Your task to perform on an android device: Open privacy settings Image 0: 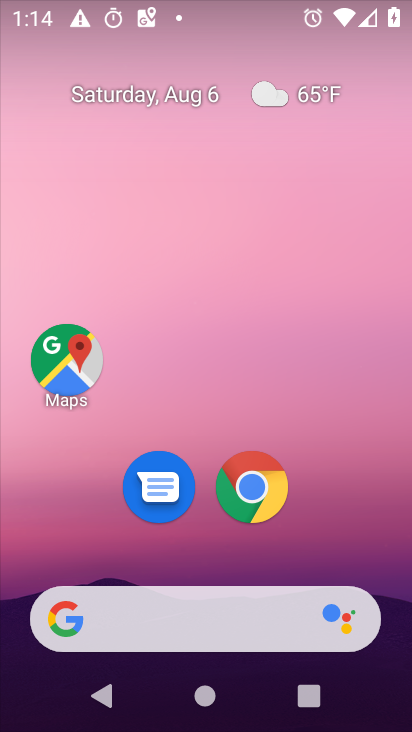
Step 0: drag from (211, 545) to (271, 21)
Your task to perform on an android device: Open privacy settings Image 1: 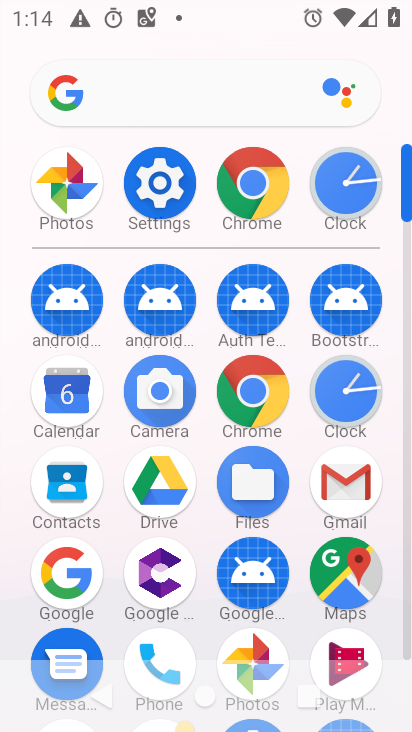
Step 1: click (143, 190)
Your task to perform on an android device: Open privacy settings Image 2: 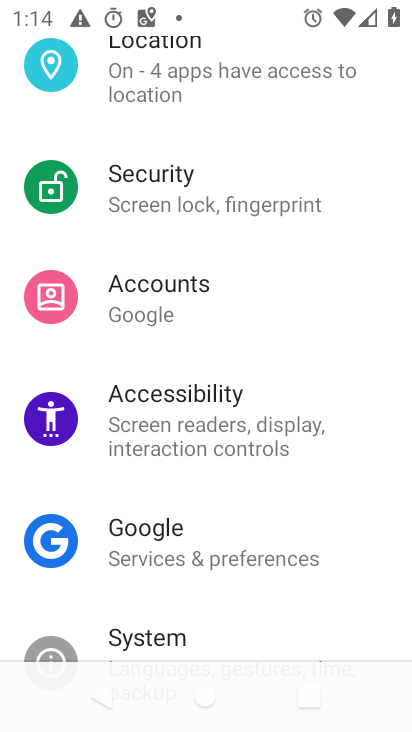
Step 2: drag from (313, 227) to (243, 696)
Your task to perform on an android device: Open privacy settings Image 3: 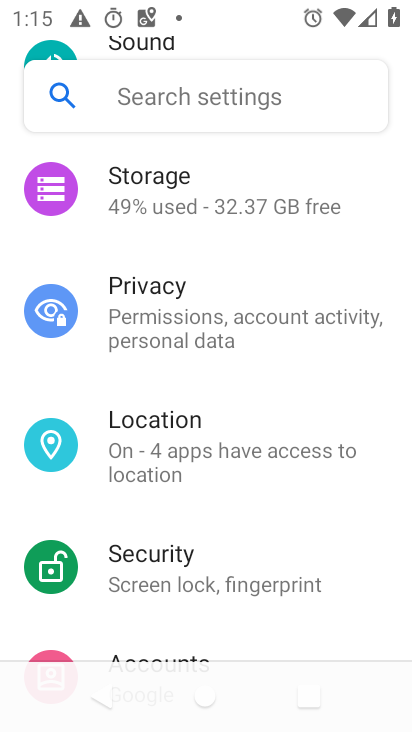
Step 3: click (172, 309)
Your task to perform on an android device: Open privacy settings Image 4: 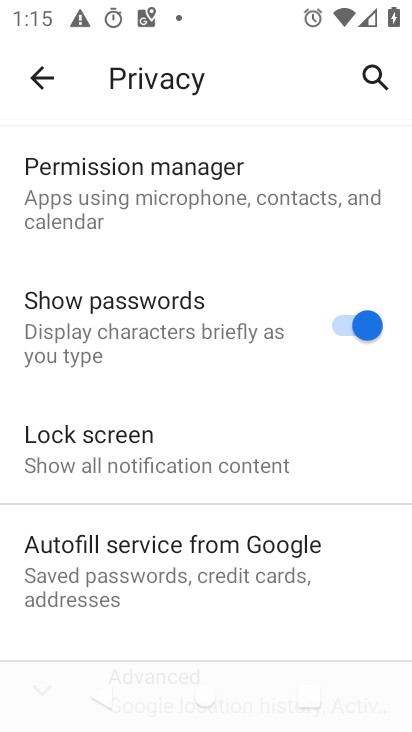
Step 4: task complete